Your task to perform on an android device: open a new tab in the chrome app Image 0: 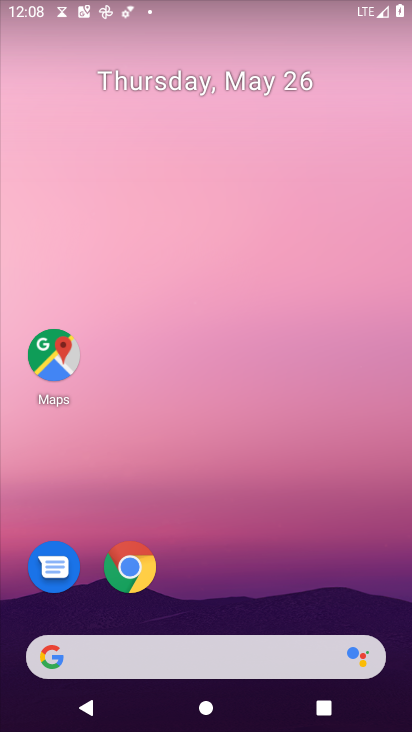
Step 0: click (149, 572)
Your task to perform on an android device: open a new tab in the chrome app Image 1: 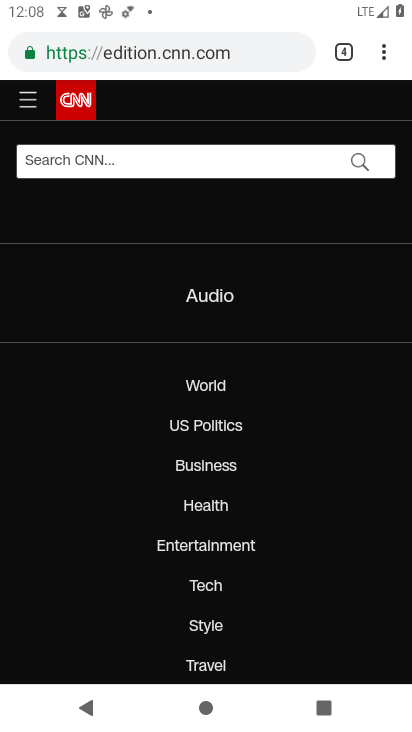
Step 1: click (333, 44)
Your task to perform on an android device: open a new tab in the chrome app Image 2: 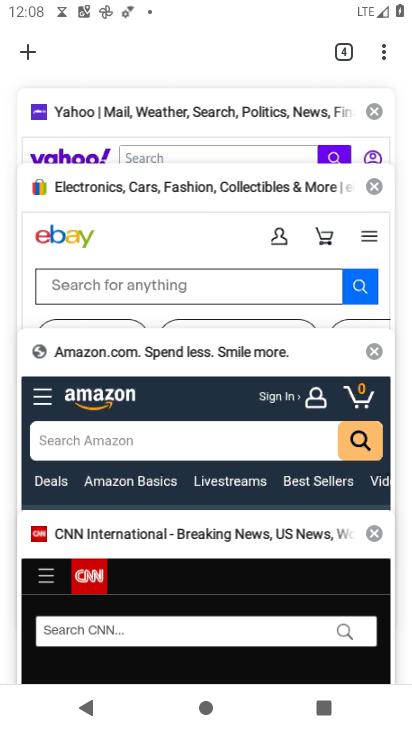
Step 2: click (25, 52)
Your task to perform on an android device: open a new tab in the chrome app Image 3: 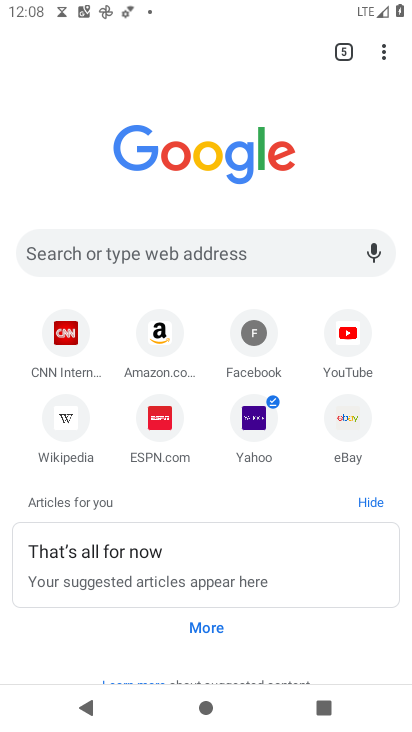
Step 3: task complete